Your task to perform on an android device: Find coffee shops on Maps Image 0: 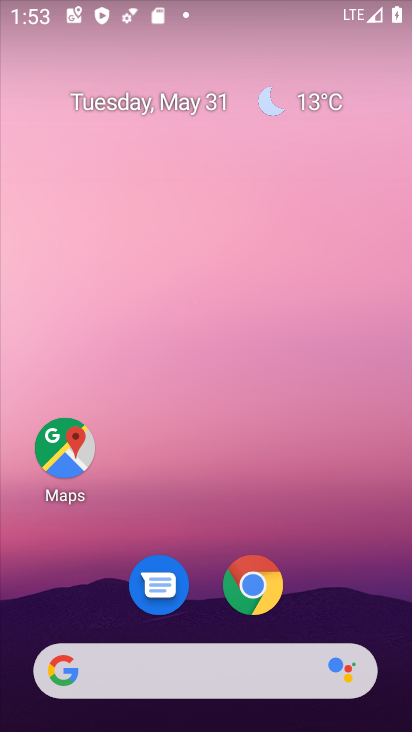
Step 0: click (59, 445)
Your task to perform on an android device: Find coffee shops on Maps Image 1: 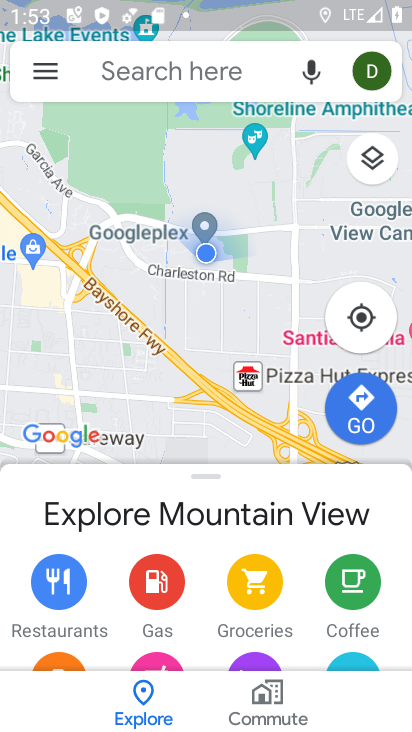
Step 1: click (163, 68)
Your task to perform on an android device: Find coffee shops on Maps Image 2: 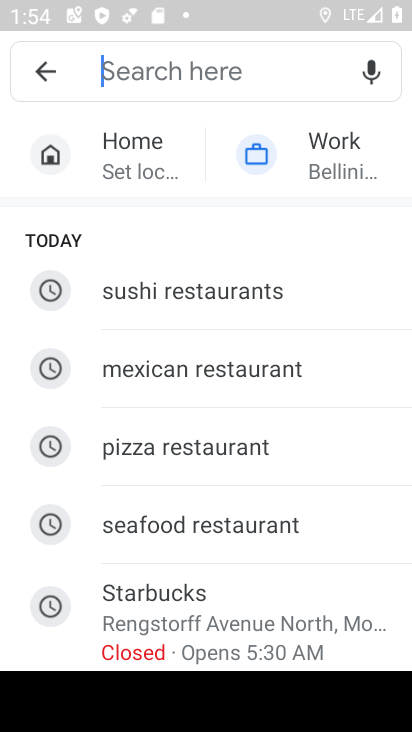
Step 2: drag from (248, 553) to (226, 333)
Your task to perform on an android device: Find coffee shops on Maps Image 3: 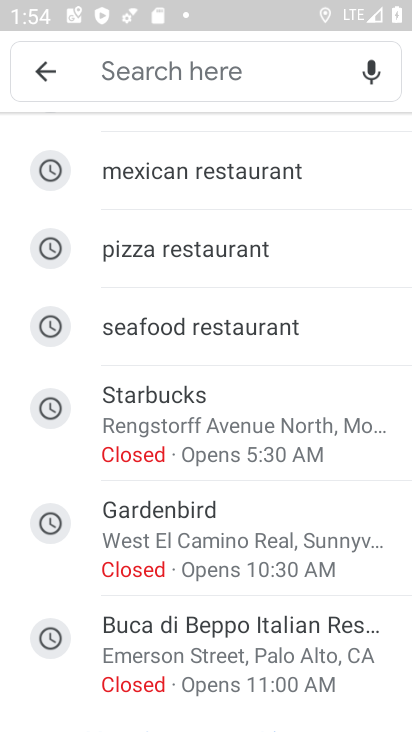
Step 3: click (261, 74)
Your task to perform on an android device: Find coffee shops on Maps Image 4: 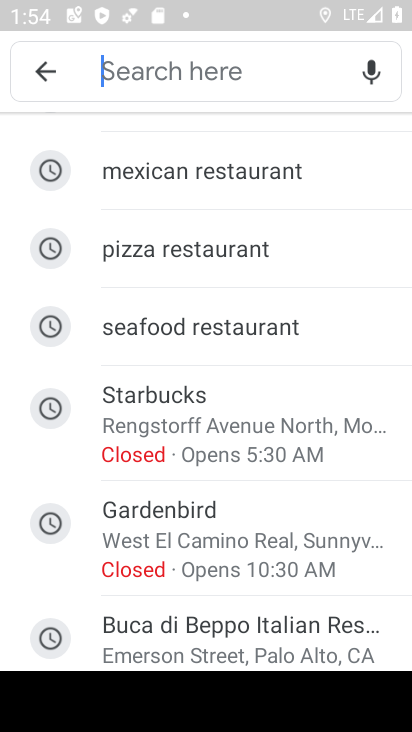
Step 4: type "coffee"
Your task to perform on an android device: Find coffee shops on Maps Image 5: 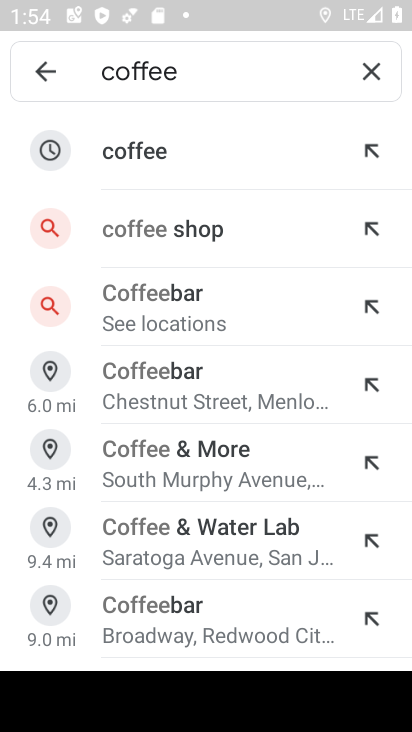
Step 5: click (163, 158)
Your task to perform on an android device: Find coffee shops on Maps Image 6: 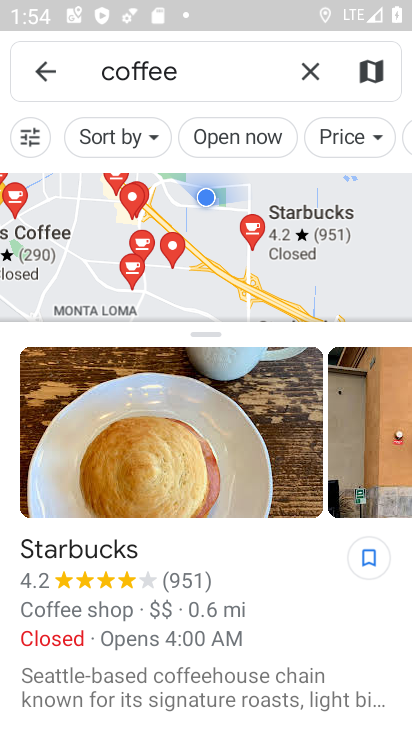
Step 6: task complete